Your task to perform on an android device: toggle improve location accuracy Image 0: 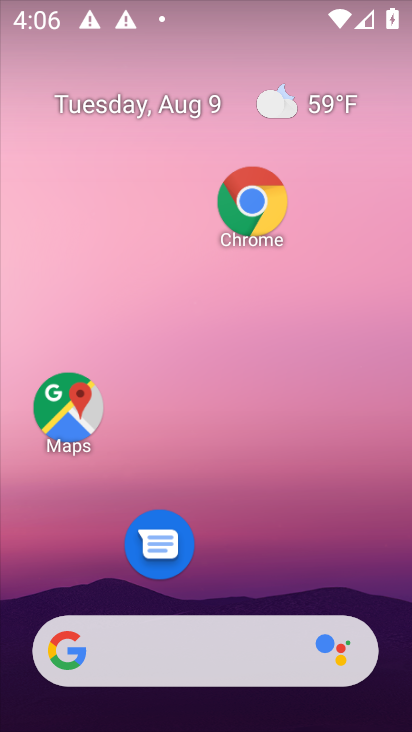
Step 0: drag from (269, 599) to (299, 79)
Your task to perform on an android device: toggle improve location accuracy Image 1: 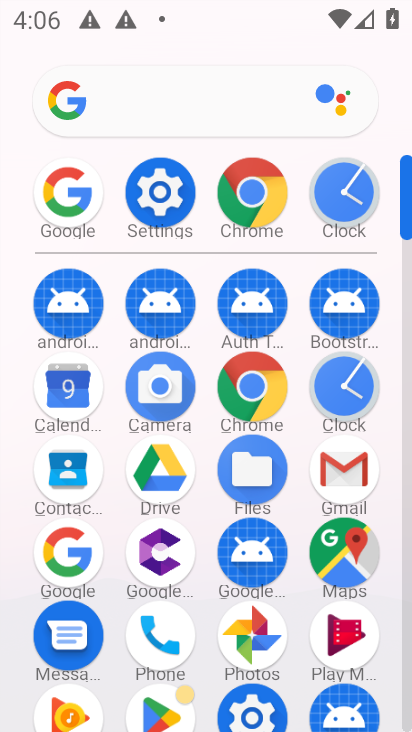
Step 1: click (164, 179)
Your task to perform on an android device: toggle improve location accuracy Image 2: 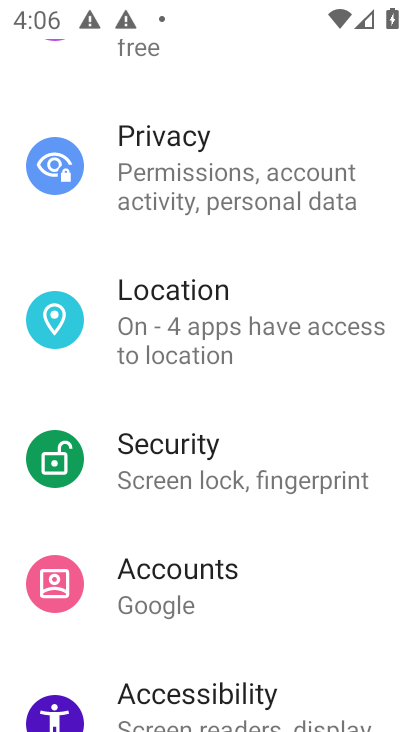
Step 2: drag from (227, 696) to (228, 352)
Your task to perform on an android device: toggle improve location accuracy Image 3: 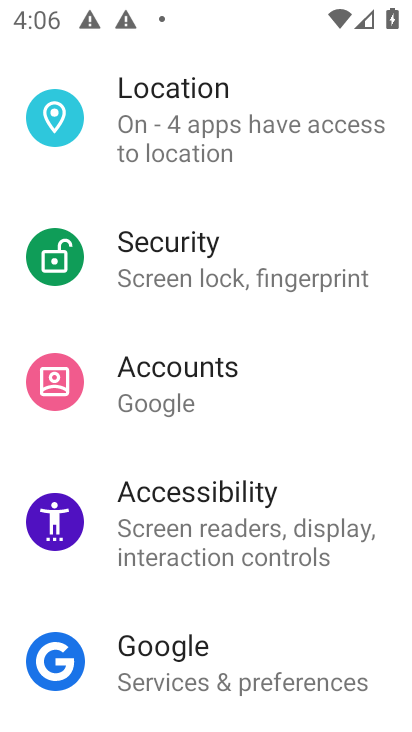
Step 3: click (175, 127)
Your task to perform on an android device: toggle improve location accuracy Image 4: 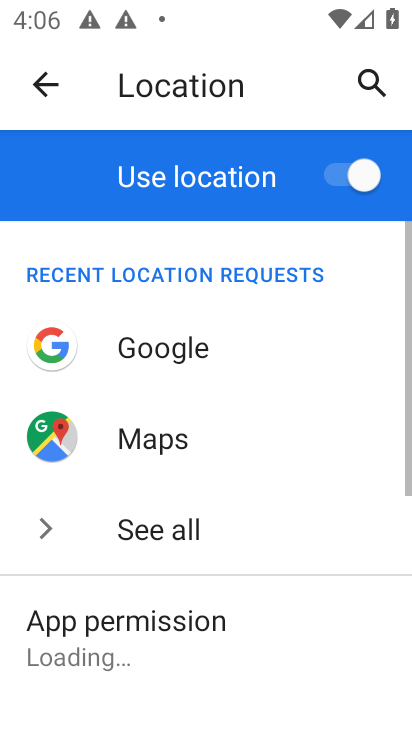
Step 4: drag from (180, 525) to (180, 355)
Your task to perform on an android device: toggle improve location accuracy Image 5: 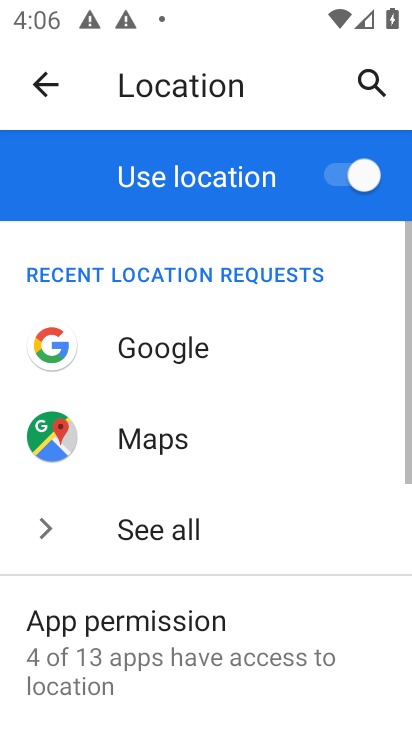
Step 5: drag from (200, 638) to (200, 316)
Your task to perform on an android device: toggle improve location accuracy Image 6: 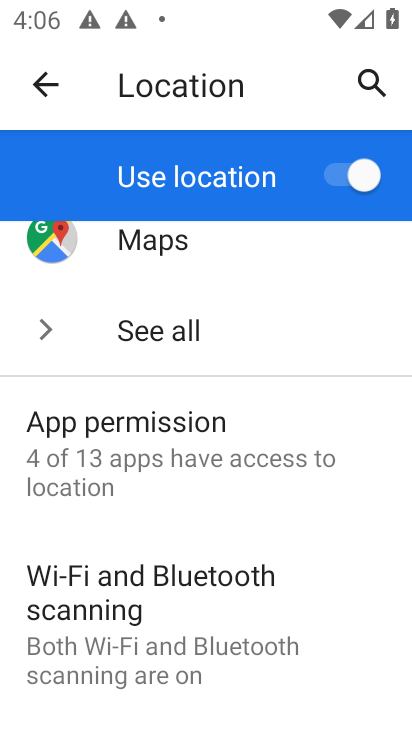
Step 6: drag from (148, 647) to (147, 367)
Your task to perform on an android device: toggle improve location accuracy Image 7: 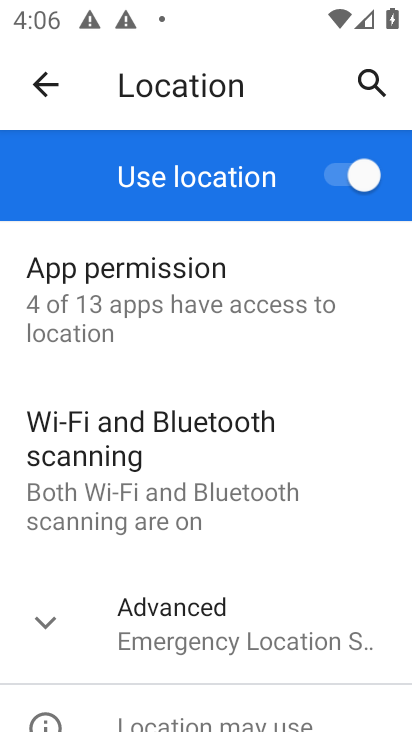
Step 7: click (187, 626)
Your task to perform on an android device: toggle improve location accuracy Image 8: 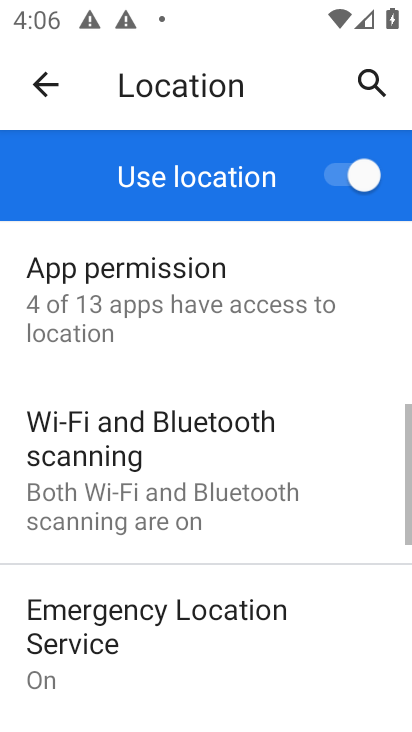
Step 8: drag from (270, 604) to (314, 351)
Your task to perform on an android device: toggle improve location accuracy Image 9: 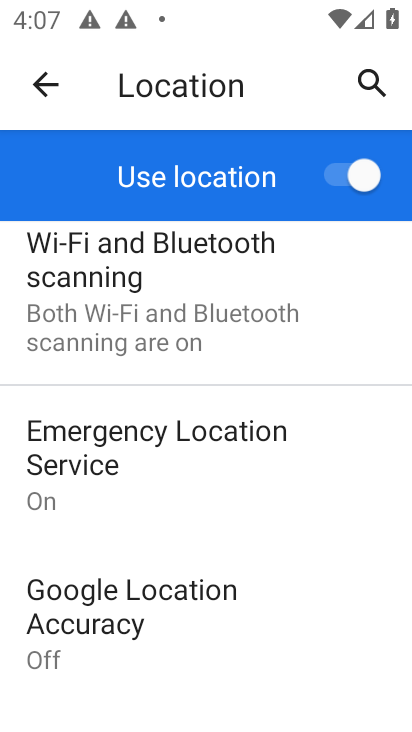
Step 9: click (74, 620)
Your task to perform on an android device: toggle improve location accuracy Image 10: 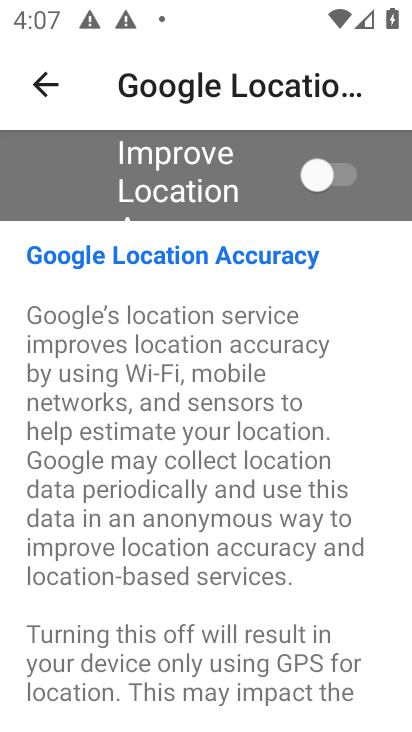
Step 10: click (337, 166)
Your task to perform on an android device: toggle improve location accuracy Image 11: 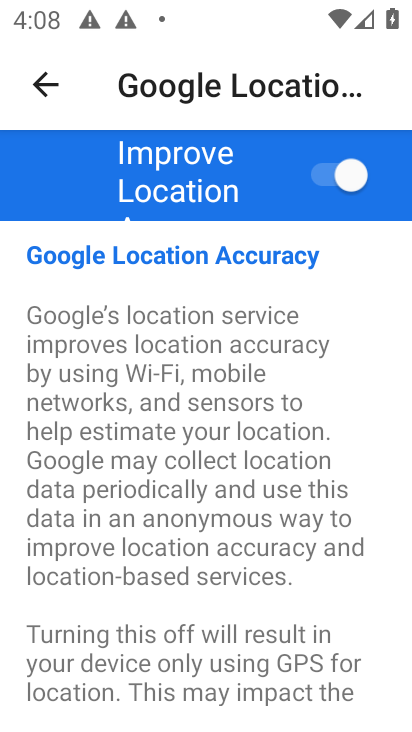
Step 11: click (330, 177)
Your task to perform on an android device: toggle improve location accuracy Image 12: 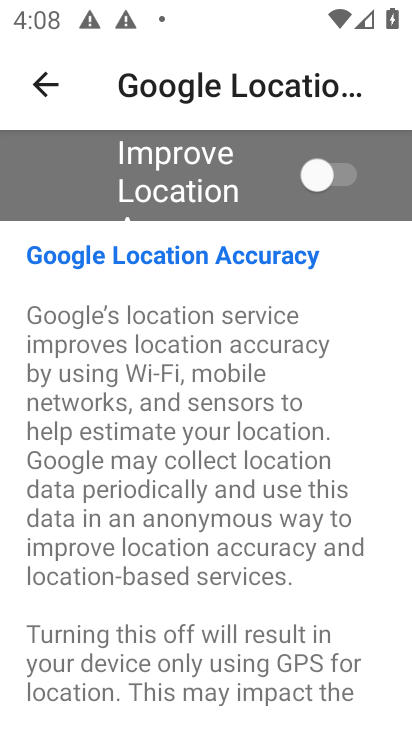
Step 12: task complete